Your task to perform on an android device: check android version Image 0: 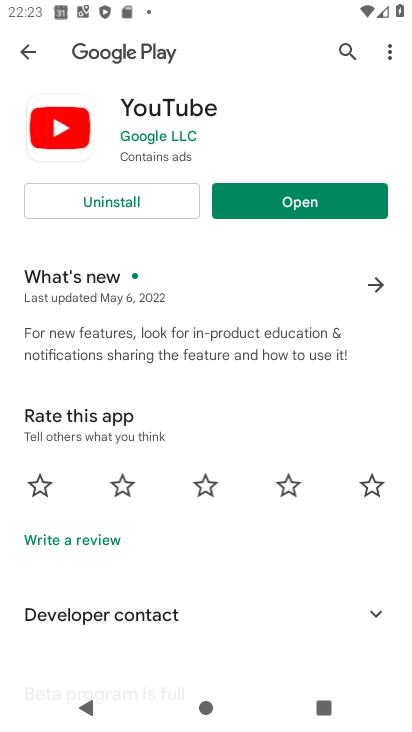
Step 0: press home button
Your task to perform on an android device: check android version Image 1: 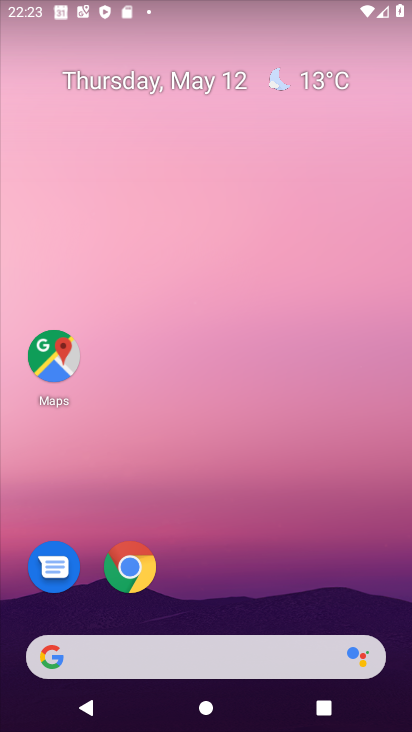
Step 1: drag from (215, 595) to (262, 110)
Your task to perform on an android device: check android version Image 2: 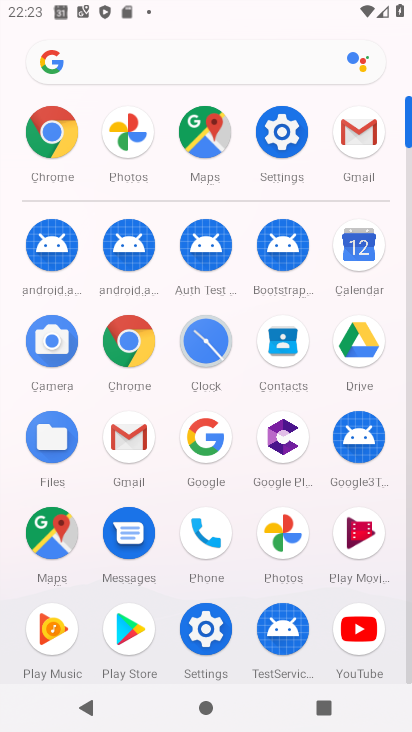
Step 2: click (280, 128)
Your task to perform on an android device: check android version Image 3: 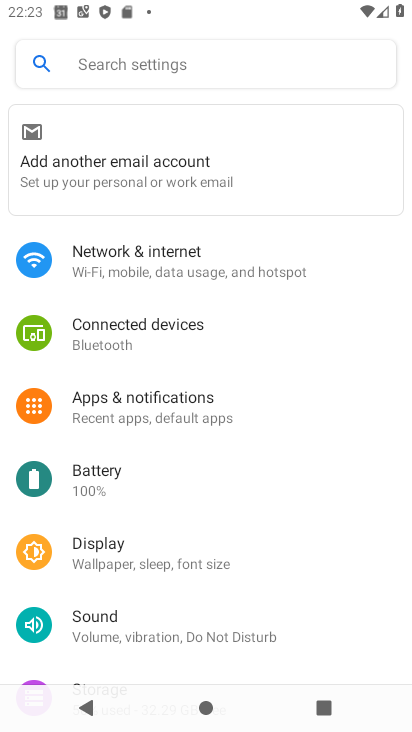
Step 3: drag from (162, 580) to (202, 156)
Your task to perform on an android device: check android version Image 4: 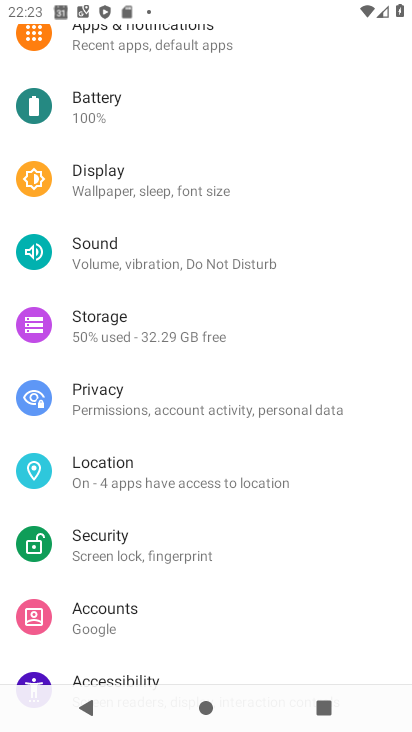
Step 4: drag from (174, 636) to (194, 112)
Your task to perform on an android device: check android version Image 5: 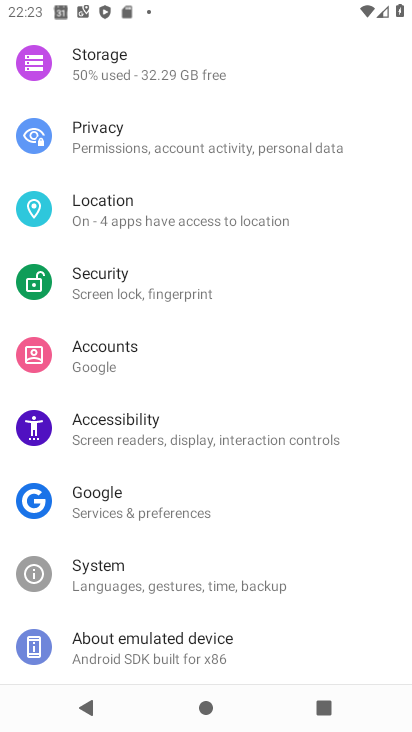
Step 5: click (219, 646)
Your task to perform on an android device: check android version Image 6: 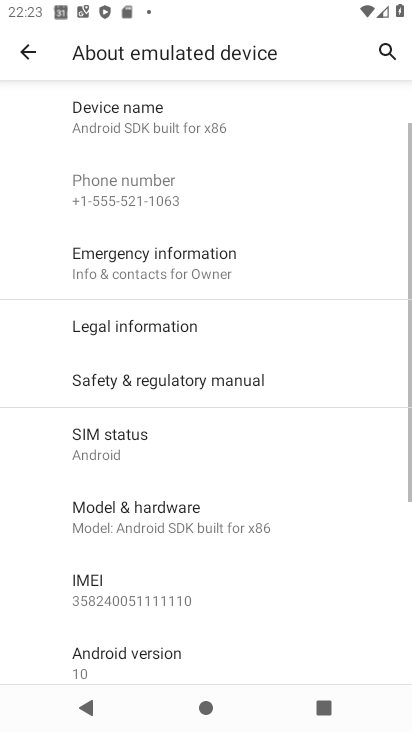
Step 6: click (183, 653)
Your task to perform on an android device: check android version Image 7: 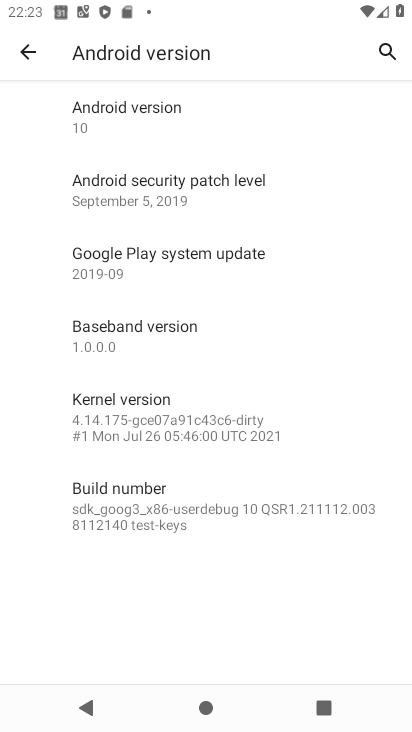
Step 7: task complete